Your task to perform on an android device: When is my next appointment? Image 0: 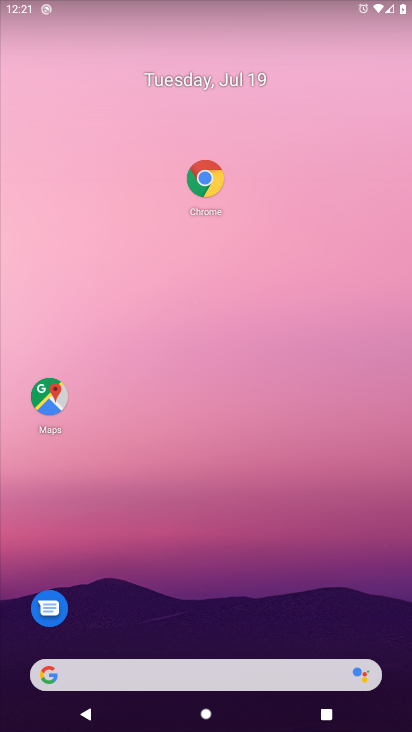
Step 0: click (117, 669)
Your task to perform on an android device: When is my next appointment? Image 1: 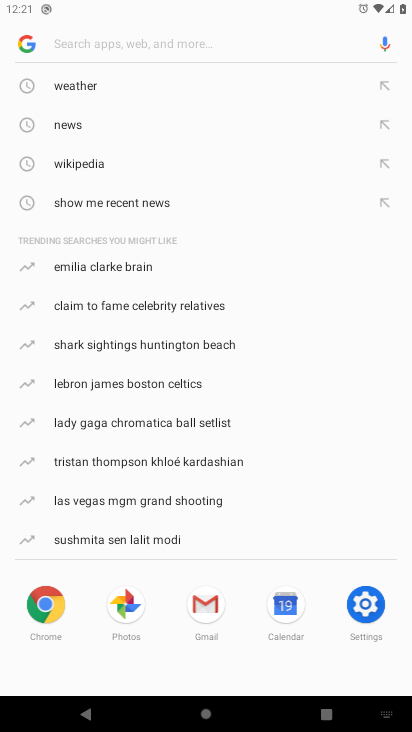
Step 1: press home button
Your task to perform on an android device: When is my next appointment? Image 2: 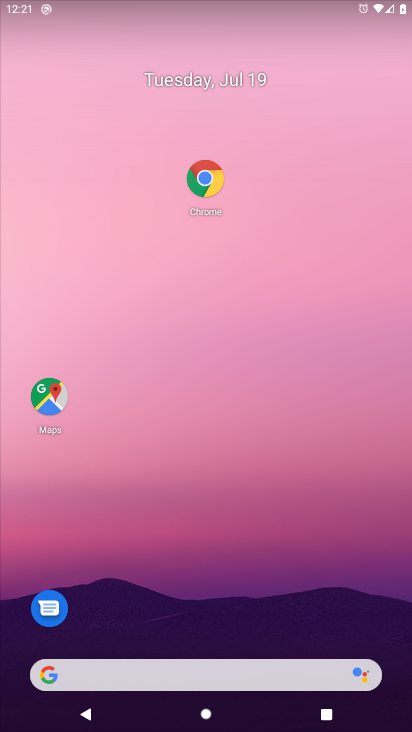
Step 2: drag from (40, 716) to (268, 179)
Your task to perform on an android device: When is my next appointment? Image 3: 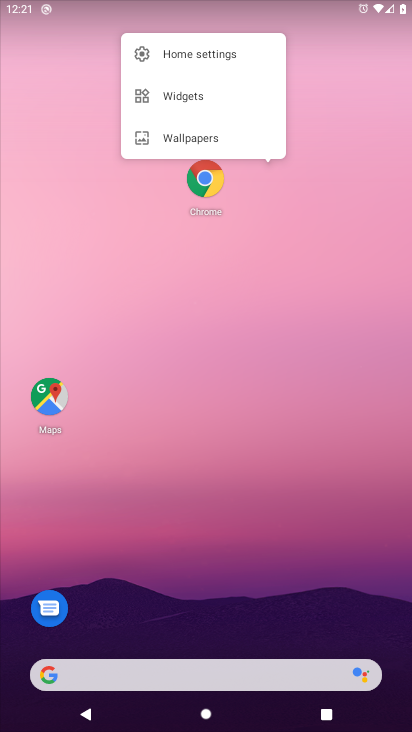
Step 3: drag from (74, 629) to (269, 118)
Your task to perform on an android device: When is my next appointment? Image 4: 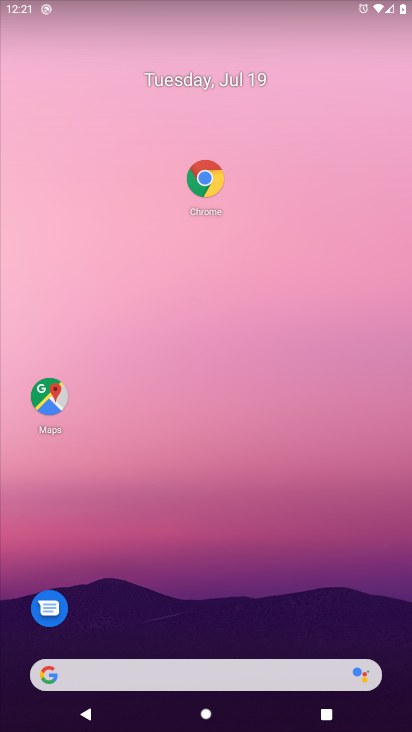
Step 4: drag from (46, 639) to (273, 120)
Your task to perform on an android device: When is my next appointment? Image 5: 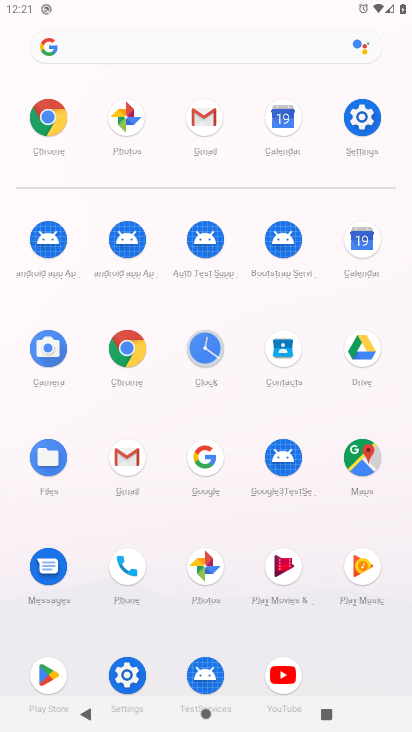
Step 5: click (358, 242)
Your task to perform on an android device: When is my next appointment? Image 6: 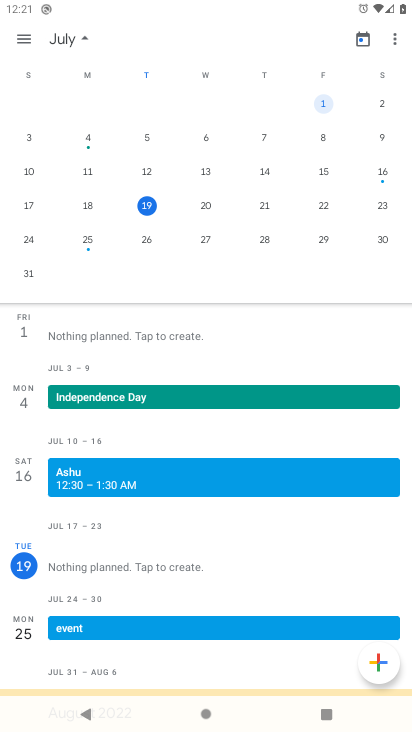
Step 6: task complete